Your task to perform on an android device: turn off notifications settings in the gmail app Image 0: 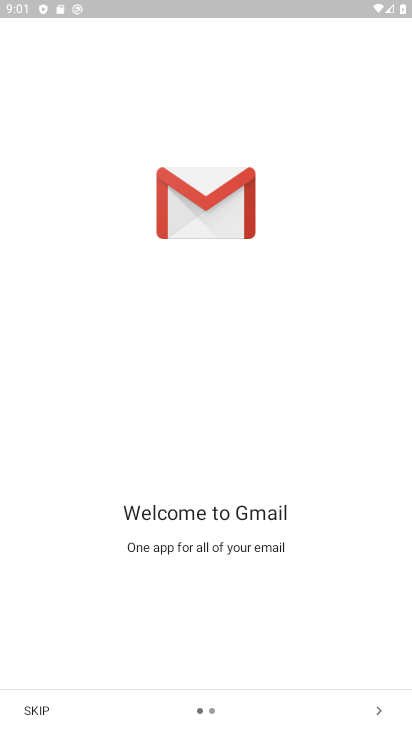
Step 0: click (376, 709)
Your task to perform on an android device: turn off notifications settings in the gmail app Image 1: 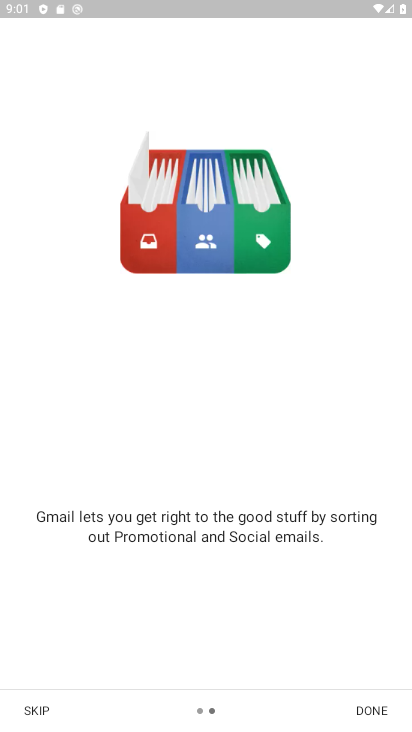
Step 1: click (378, 710)
Your task to perform on an android device: turn off notifications settings in the gmail app Image 2: 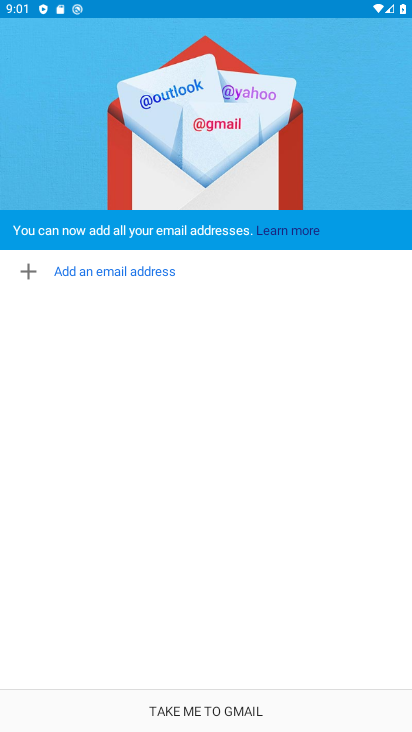
Step 2: click (193, 712)
Your task to perform on an android device: turn off notifications settings in the gmail app Image 3: 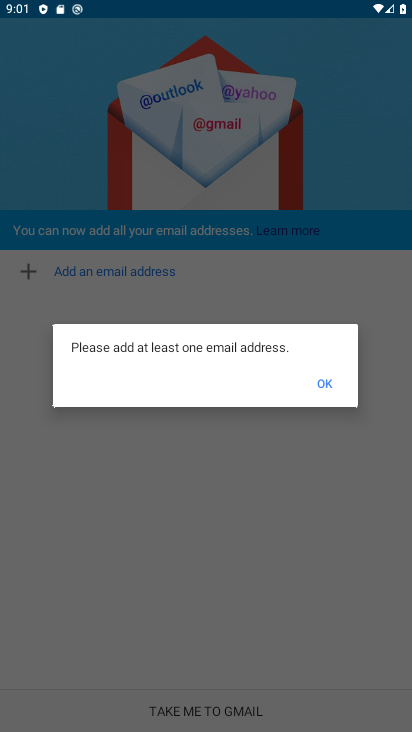
Step 3: click (329, 387)
Your task to perform on an android device: turn off notifications settings in the gmail app Image 4: 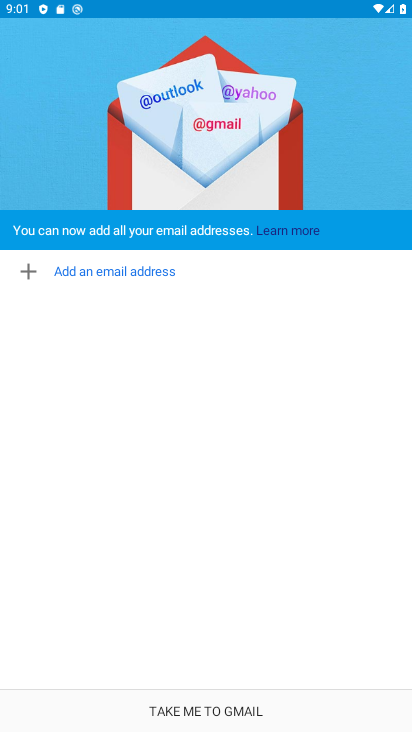
Step 4: click (209, 704)
Your task to perform on an android device: turn off notifications settings in the gmail app Image 5: 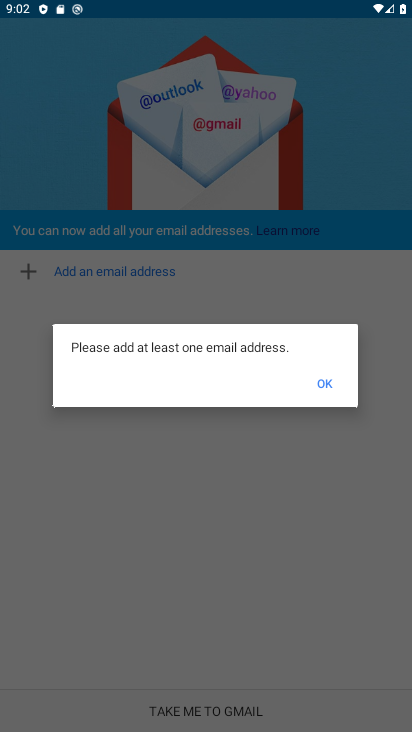
Step 5: task complete